Your task to perform on an android device: Go to privacy settings Image 0: 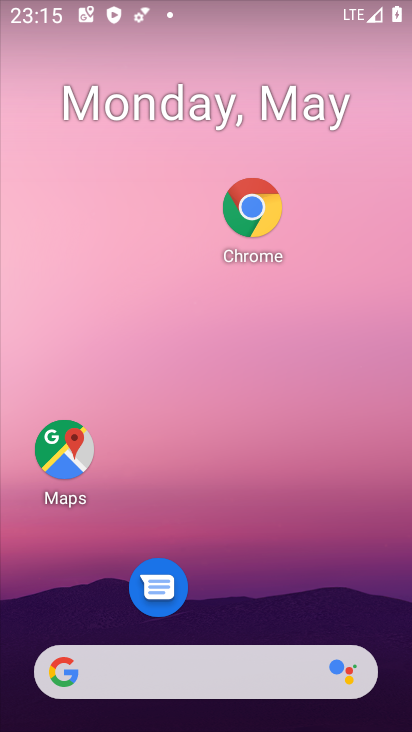
Step 0: drag from (268, 713) to (143, 83)
Your task to perform on an android device: Go to privacy settings Image 1: 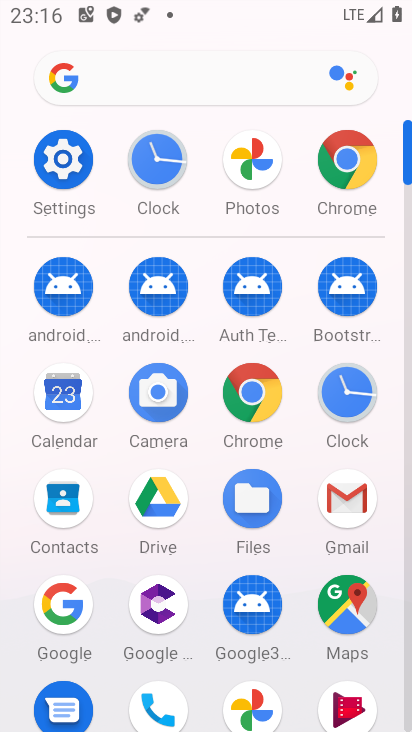
Step 1: click (52, 160)
Your task to perform on an android device: Go to privacy settings Image 2: 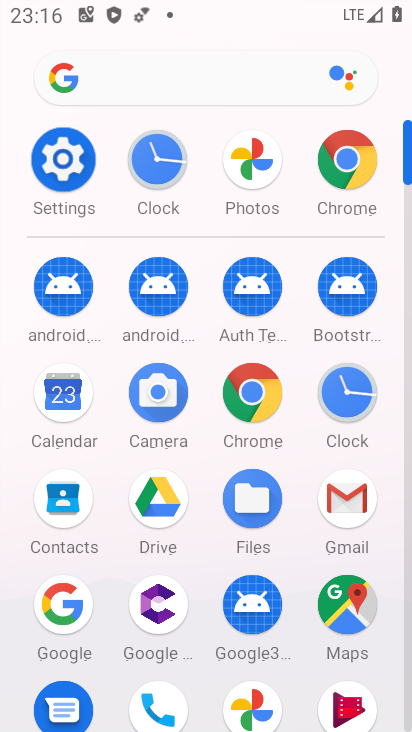
Step 2: click (58, 154)
Your task to perform on an android device: Go to privacy settings Image 3: 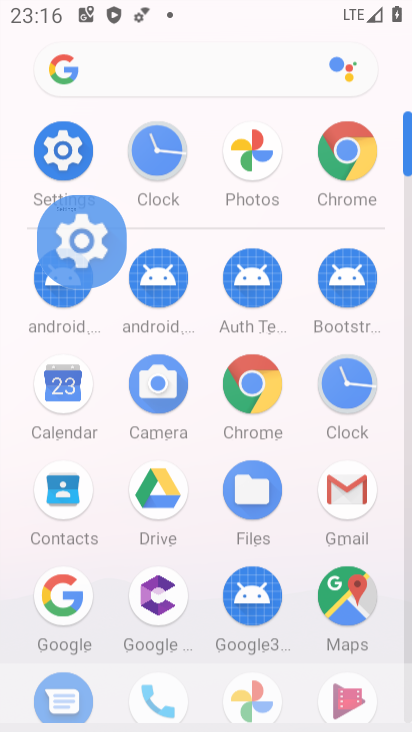
Step 3: click (59, 153)
Your task to perform on an android device: Go to privacy settings Image 4: 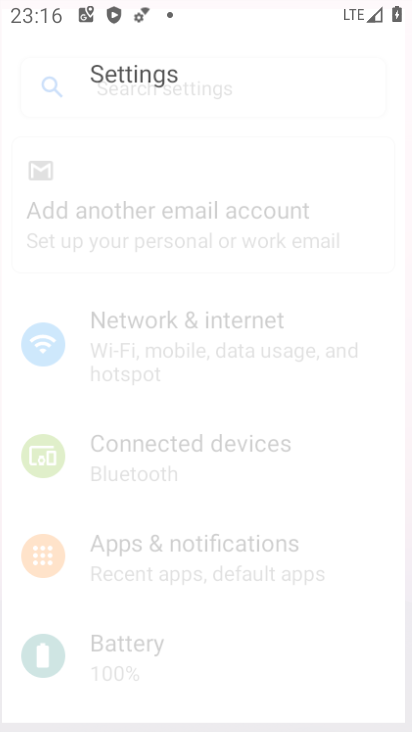
Step 4: click (59, 153)
Your task to perform on an android device: Go to privacy settings Image 5: 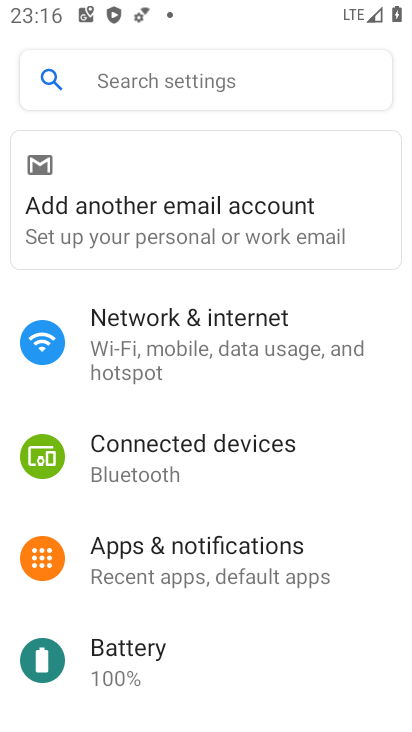
Step 5: drag from (236, 534) to (222, 189)
Your task to perform on an android device: Go to privacy settings Image 6: 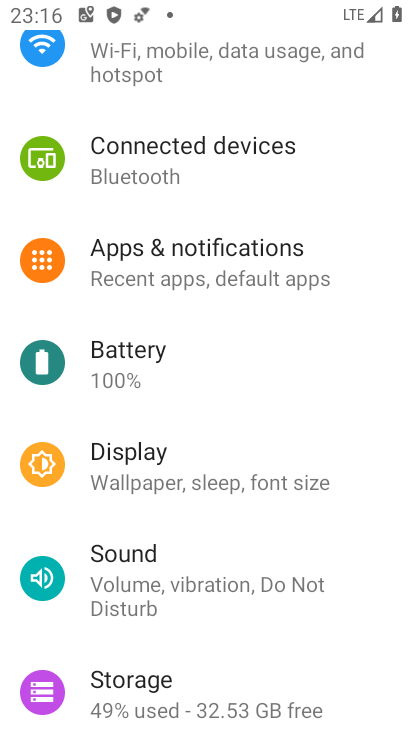
Step 6: drag from (150, 590) to (67, 323)
Your task to perform on an android device: Go to privacy settings Image 7: 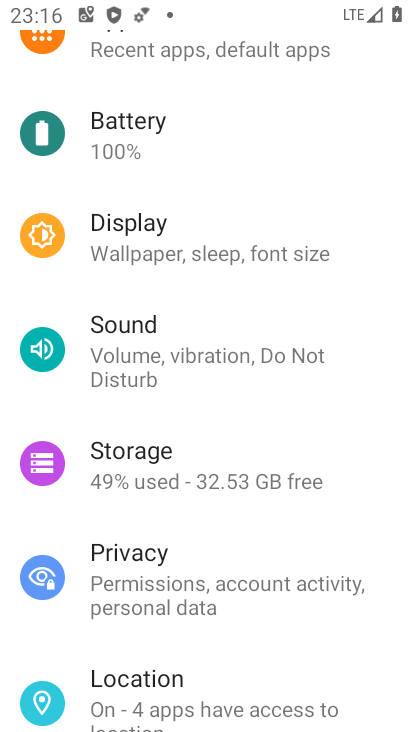
Step 7: drag from (217, 488) to (177, 115)
Your task to perform on an android device: Go to privacy settings Image 8: 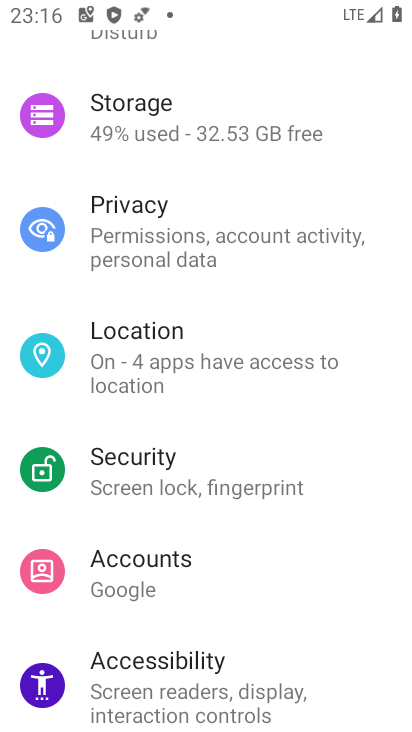
Step 8: drag from (205, 603) to (174, 174)
Your task to perform on an android device: Go to privacy settings Image 9: 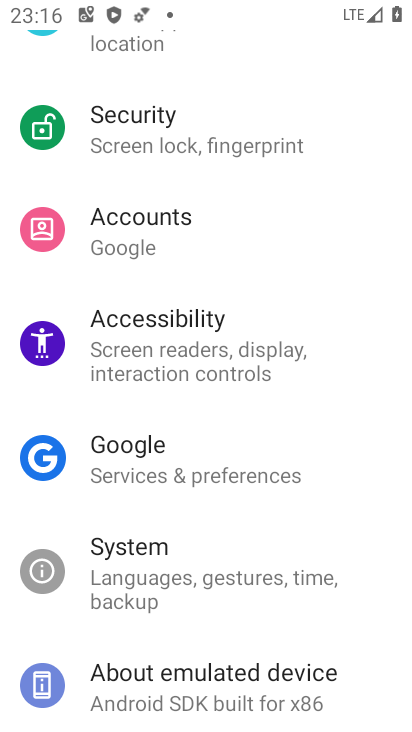
Step 9: drag from (231, 539) to (258, 114)
Your task to perform on an android device: Go to privacy settings Image 10: 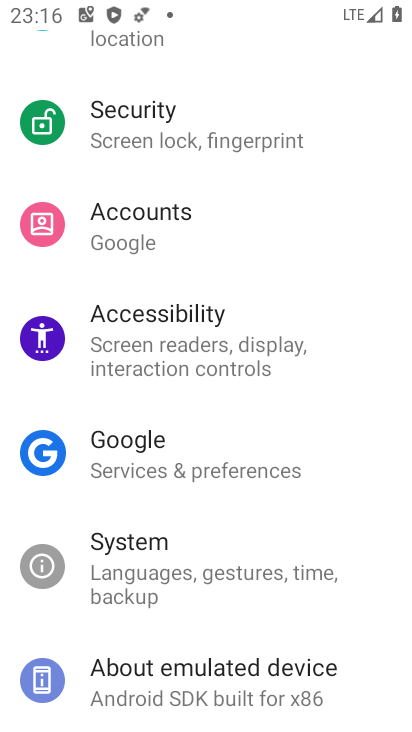
Step 10: drag from (115, 129) to (229, 524)
Your task to perform on an android device: Go to privacy settings Image 11: 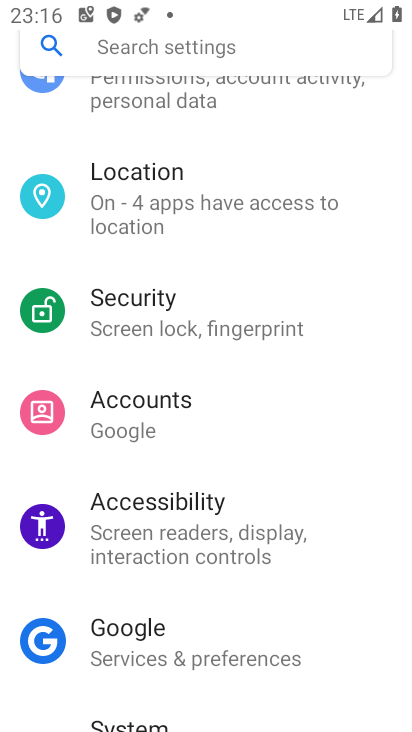
Step 11: drag from (184, 283) to (134, 713)
Your task to perform on an android device: Go to privacy settings Image 12: 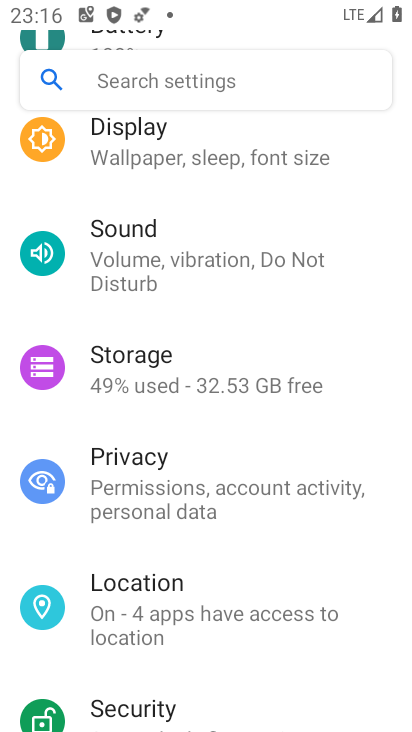
Step 12: drag from (134, 304) to (150, 707)
Your task to perform on an android device: Go to privacy settings Image 13: 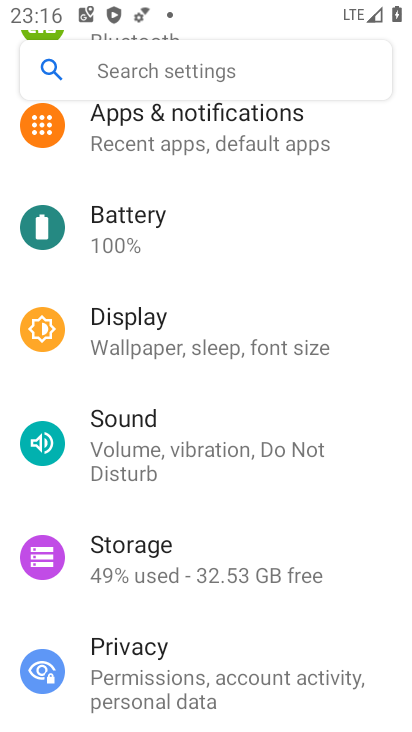
Step 13: drag from (136, 354) to (142, 696)
Your task to perform on an android device: Go to privacy settings Image 14: 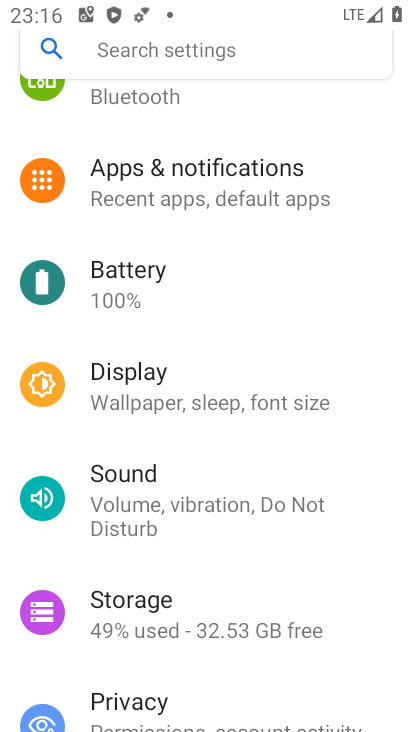
Step 14: drag from (125, 252) to (192, 680)
Your task to perform on an android device: Go to privacy settings Image 15: 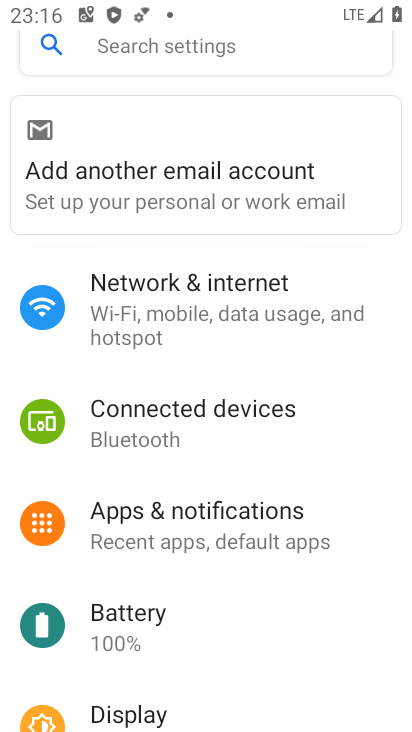
Step 15: drag from (180, 325) to (180, 718)
Your task to perform on an android device: Go to privacy settings Image 16: 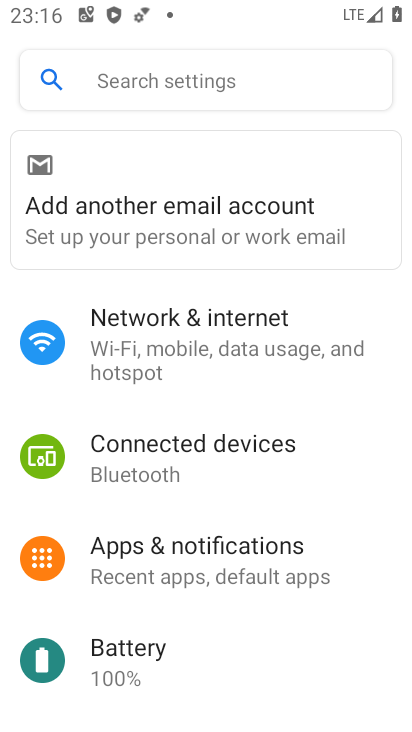
Step 16: drag from (188, 603) to (244, 157)
Your task to perform on an android device: Go to privacy settings Image 17: 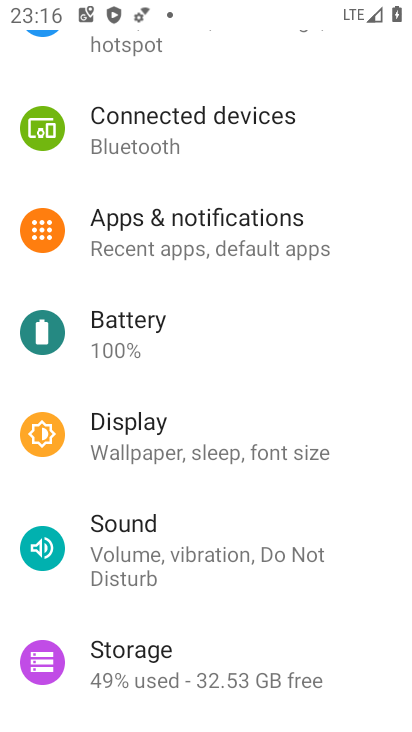
Step 17: drag from (250, 466) to (275, 184)
Your task to perform on an android device: Go to privacy settings Image 18: 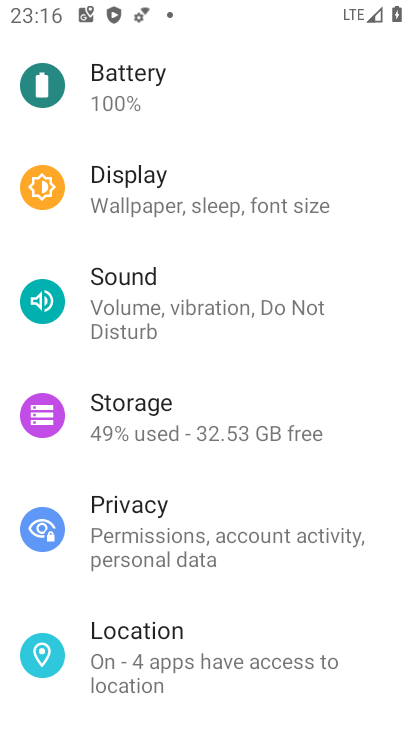
Step 18: click (141, 535)
Your task to perform on an android device: Go to privacy settings Image 19: 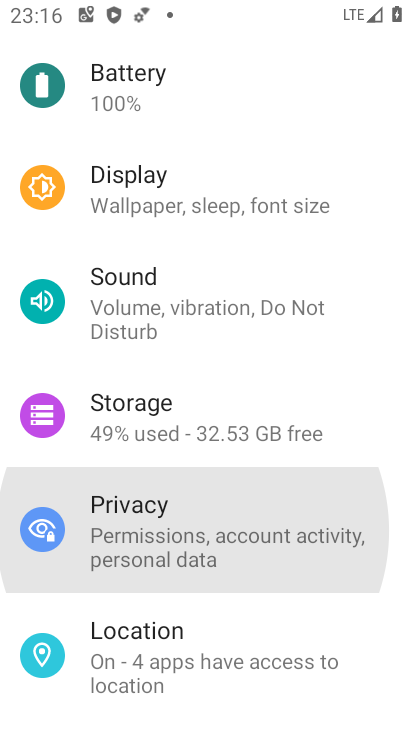
Step 19: click (141, 535)
Your task to perform on an android device: Go to privacy settings Image 20: 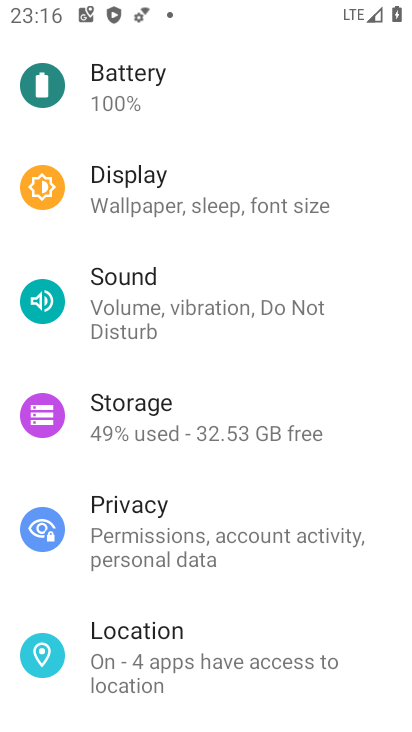
Step 20: click (141, 533)
Your task to perform on an android device: Go to privacy settings Image 21: 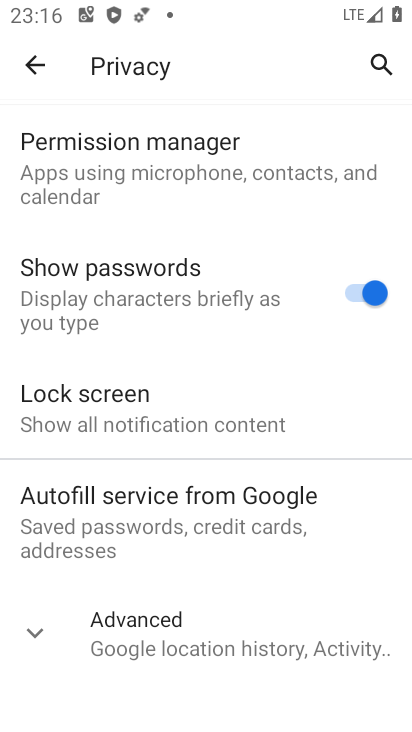
Step 21: task complete